Your task to perform on an android device: Go to sound settings Image 0: 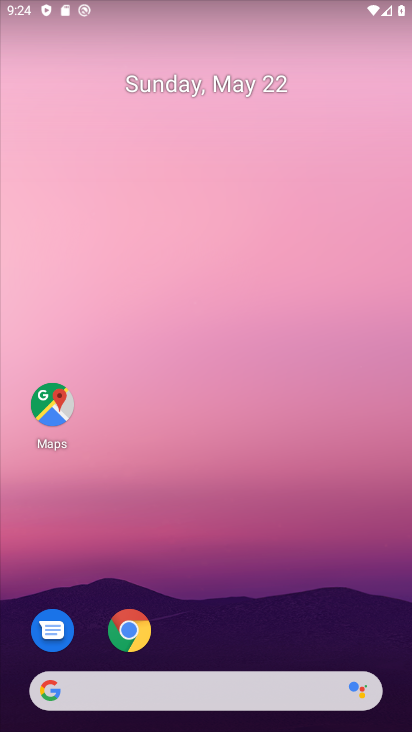
Step 0: drag from (394, 649) to (364, 210)
Your task to perform on an android device: Go to sound settings Image 1: 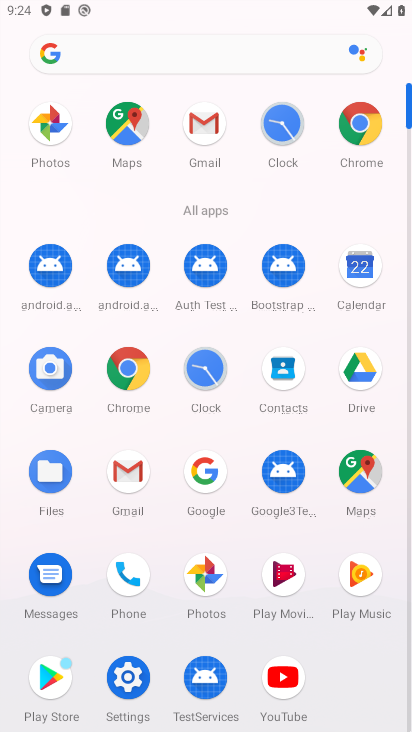
Step 1: click (138, 689)
Your task to perform on an android device: Go to sound settings Image 2: 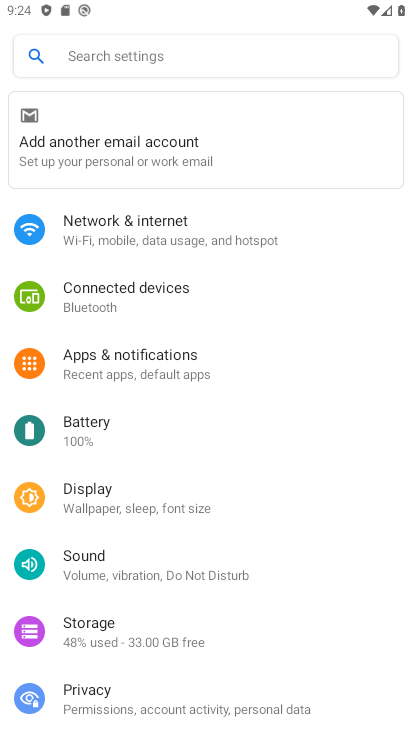
Step 2: drag from (316, 606) to (327, 460)
Your task to perform on an android device: Go to sound settings Image 3: 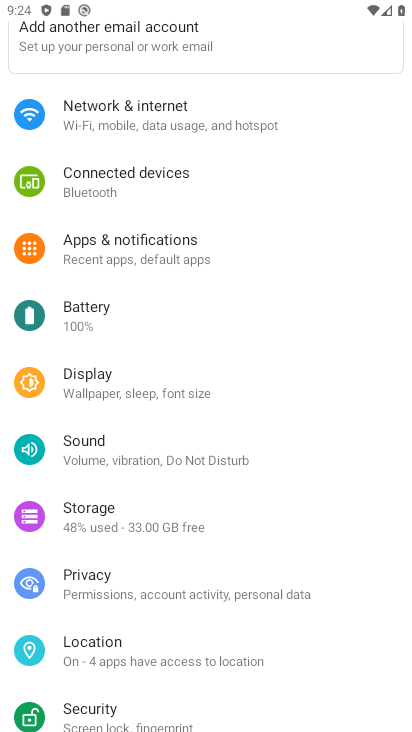
Step 3: drag from (350, 638) to (360, 520)
Your task to perform on an android device: Go to sound settings Image 4: 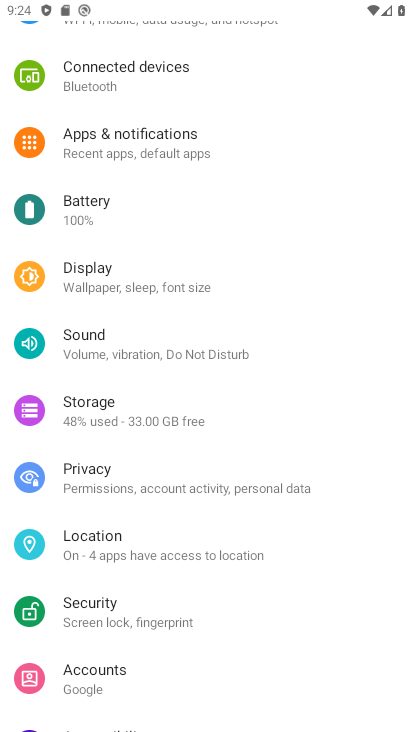
Step 4: drag from (378, 617) to (369, 522)
Your task to perform on an android device: Go to sound settings Image 5: 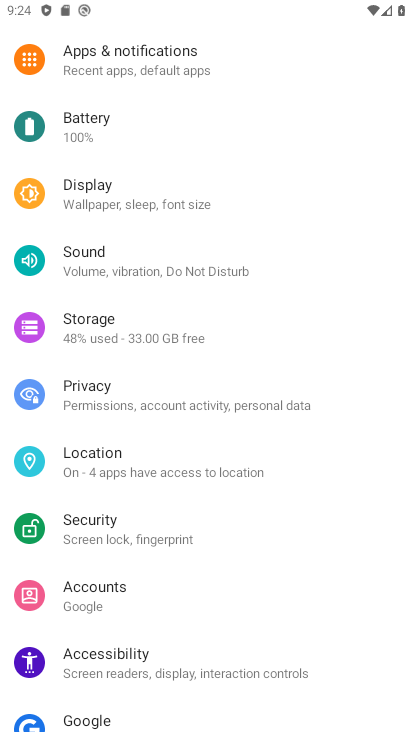
Step 5: drag from (357, 556) to (355, 463)
Your task to perform on an android device: Go to sound settings Image 6: 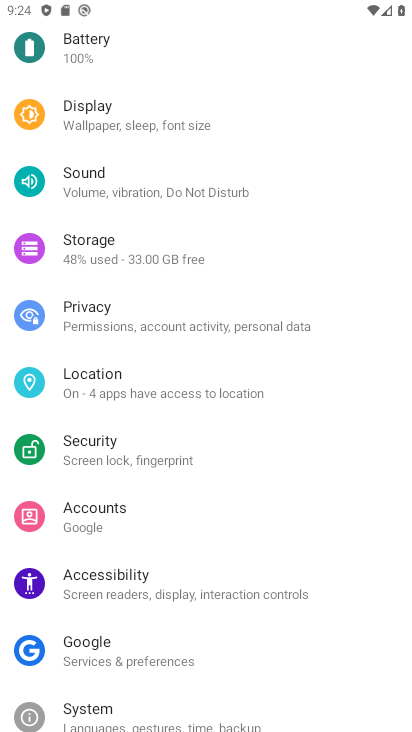
Step 6: drag from (353, 538) to (354, 449)
Your task to perform on an android device: Go to sound settings Image 7: 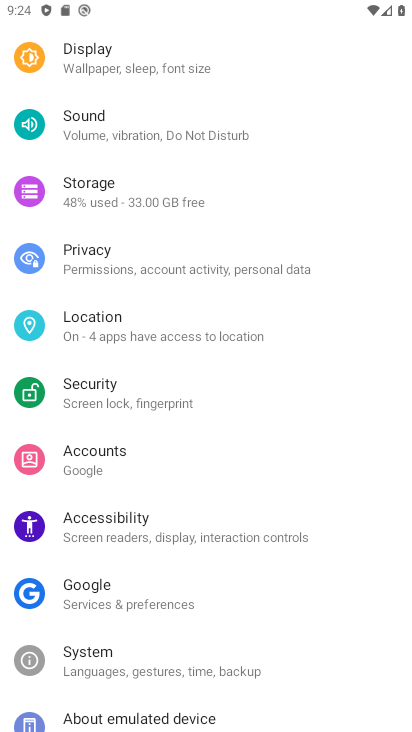
Step 7: drag from (366, 598) to (363, 479)
Your task to perform on an android device: Go to sound settings Image 8: 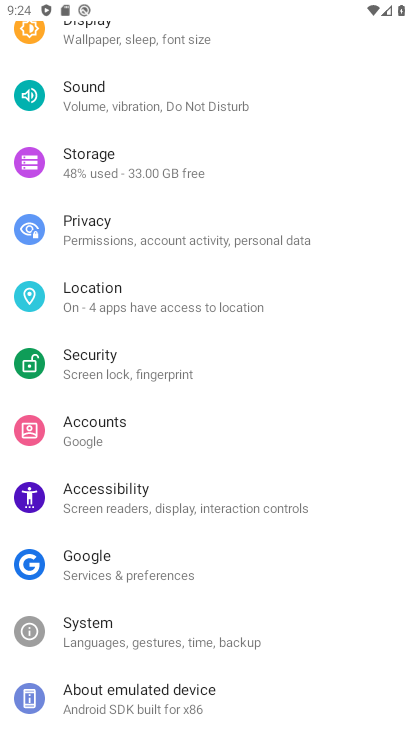
Step 8: drag from (351, 631) to (356, 487)
Your task to perform on an android device: Go to sound settings Image 9: 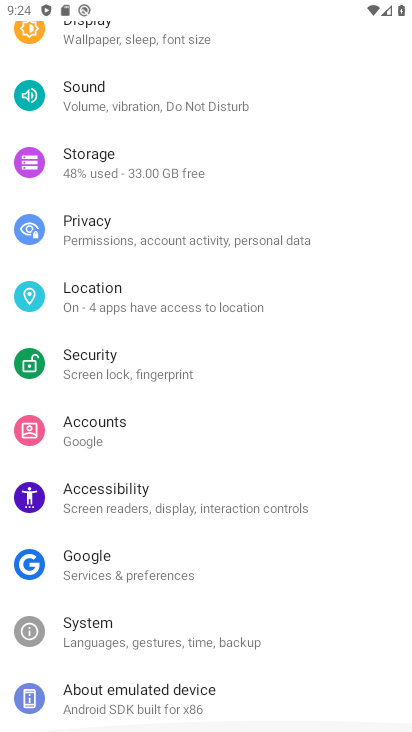
Step 9: drag from (348, 423) to (340, 521)
Your task to perform on an android device: Go to sound settings Image 10: 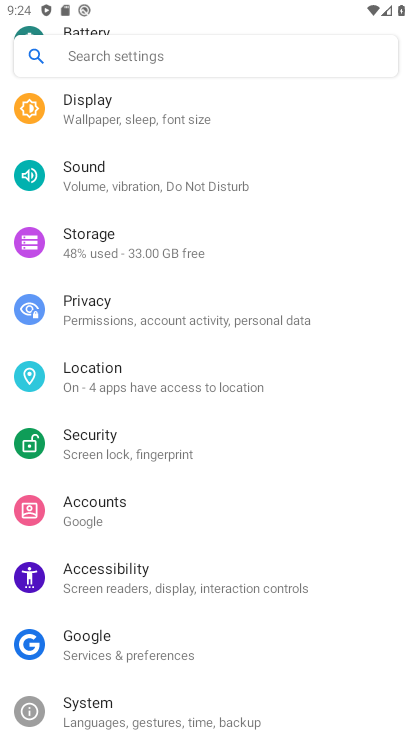
Step 10: drag from (352, 393) to (343, 497)
Your task to perform on an android device: Go to sound settings Image 11: 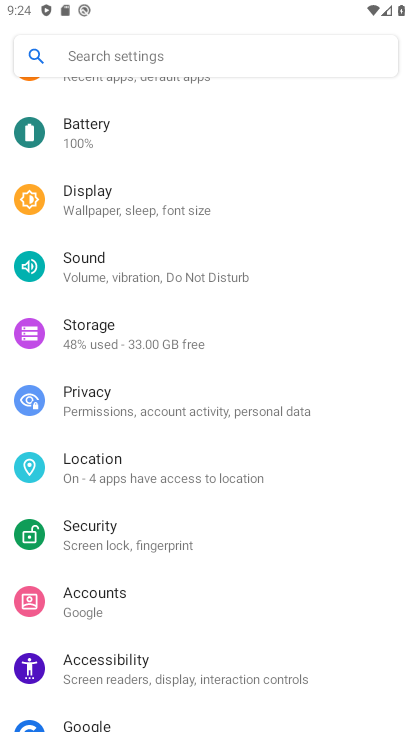
Step 11: drag from (345, 397) to (346, 473)
Your task to perform on an android device: Go to sound settings Image 12: 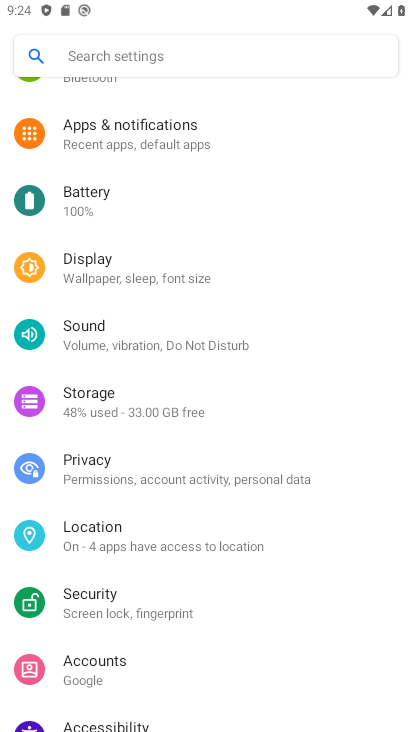
Step 12: drag from (346, 377) to (344, 464)
Your task to perform on an android device: Go to sound settings Image 13: 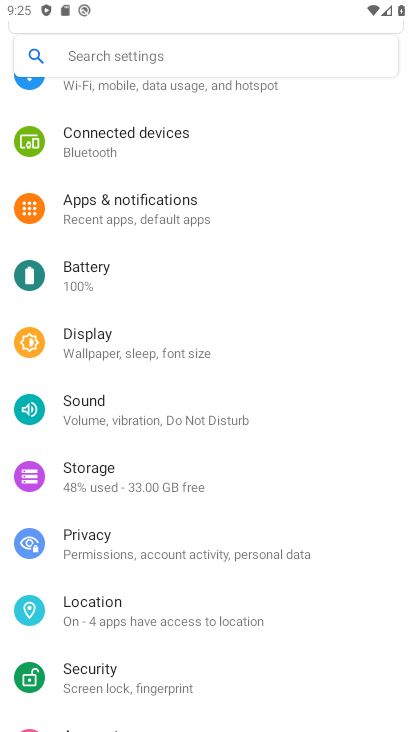
Step 13: drag from (344, 371) to (355, 457)
Your task to perform on an android device: Go to sound settings Image 14: 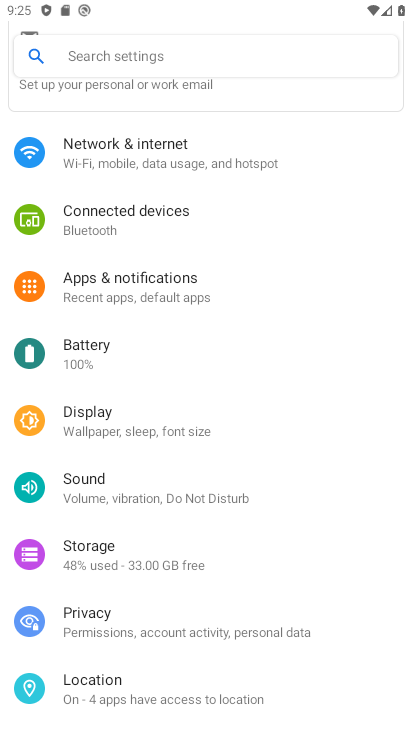
Step 14: click (239, 508)
Your task to perform on an android device: Go to sound settings Image 15: 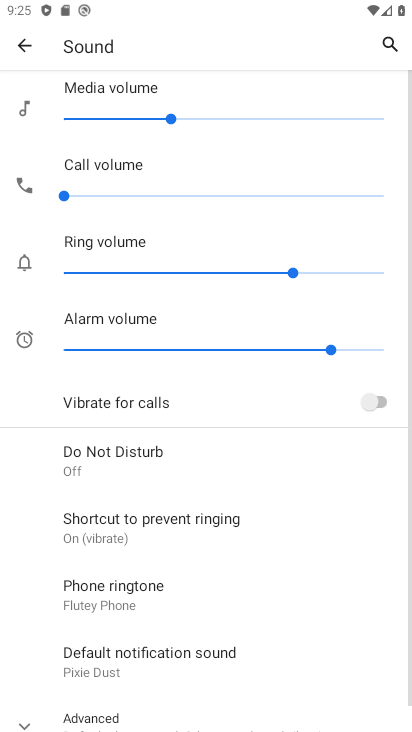
Step 15: task complete